Your task to perform on an android device: turn off priority inbox in the gmail app Image 0: 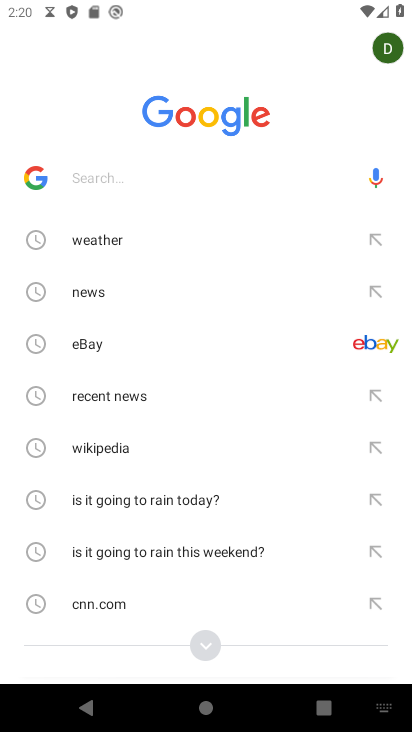
Step 0: press home button
Your task to perform on an android device: turn off priority inbox in the gmail app Image 1: 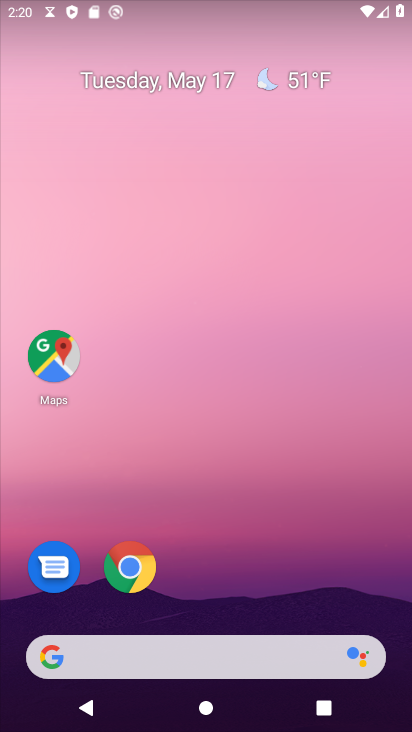
Step 1: drag from (240, 642) to (219, 262)
Your task to perform on an android device: turn off priority inbox in the gmail app Image 2: 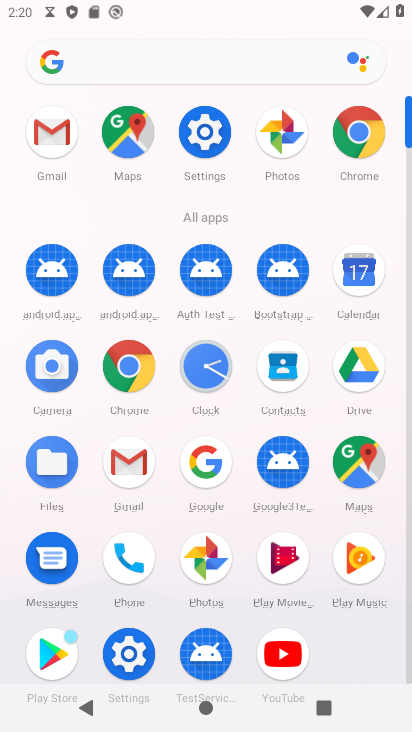
Step 2: click (137, 472)
Your task to perform on an android device: turn off priority inbox in the gmail app Image 3: 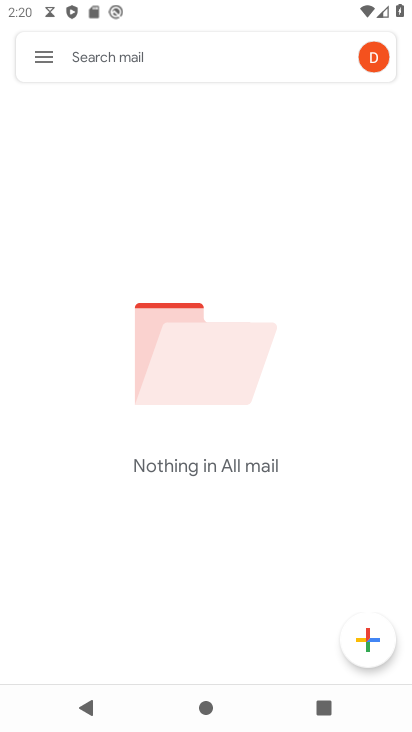
Step 3: click (40, 60)
Your task to perform on an android device: turn off priority inbox in the gmail app Image 4: 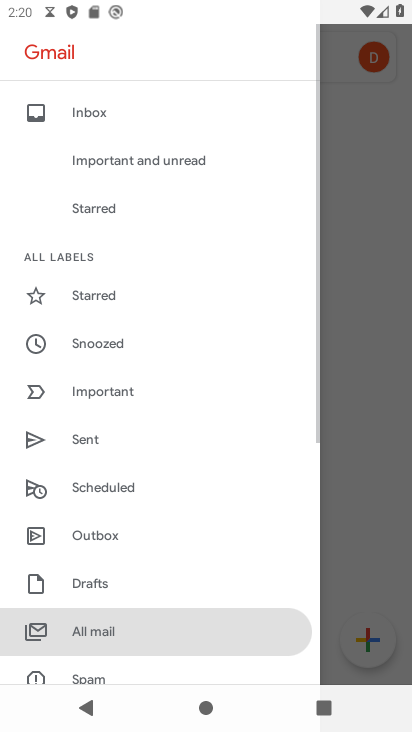
Step 4: drag from (104, 603) to (146, 261)
Your task to perform on an android device: turn off priority inbox in the gmail app Image 5: 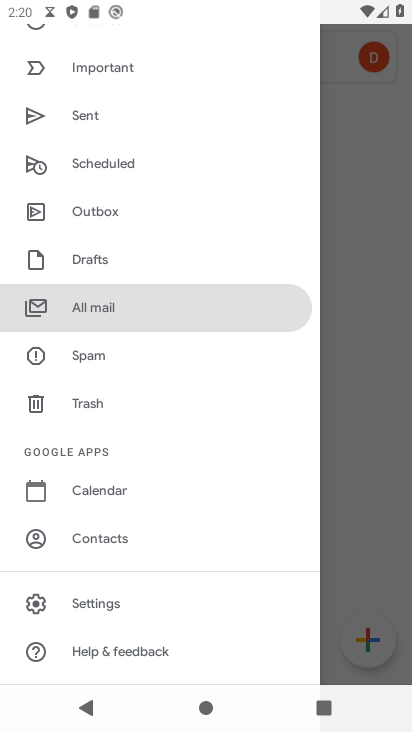
Step 5: click (102, 583)
Your task to perform on an android device: turn off priority inbox in the gmail app Image 6: 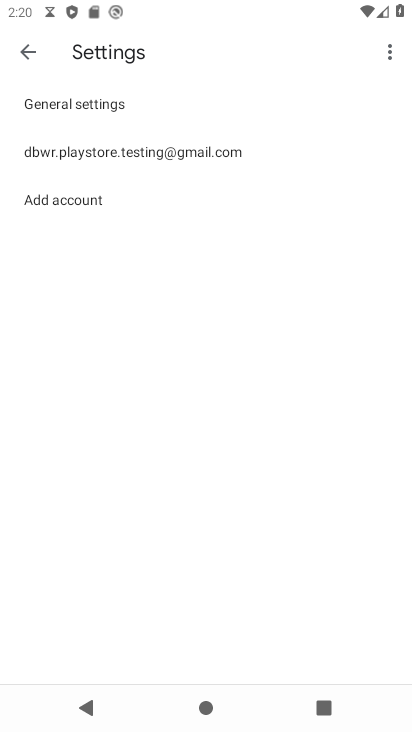
Step 6: click (99, 153)
Your task to perform on an android device: turn off priority inbox in the gmail app Image 7: 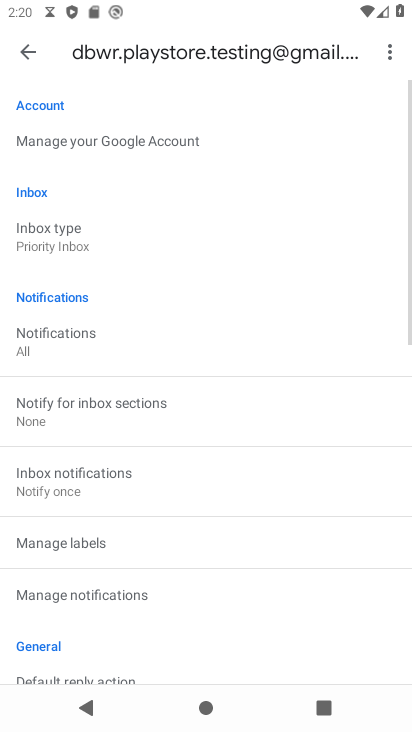
Step 7: click (77, 240)
Your task to perform on an android device: turn off priority inbox in the gmail app Image 8: 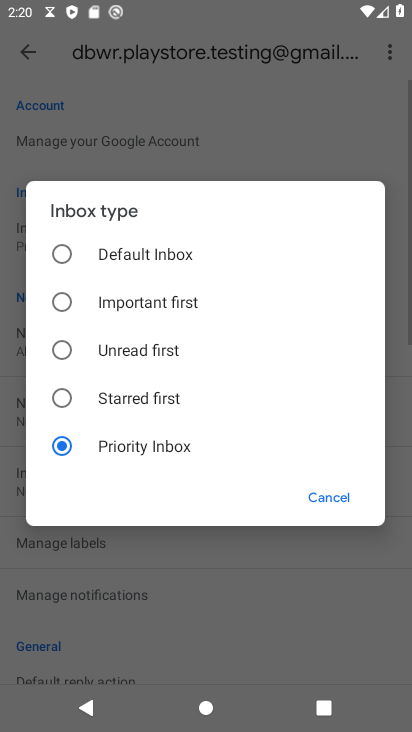
Step 8: click (78, 260)
Your task to perform on an android device: turn off priority inbox in the gmail app Image 9: 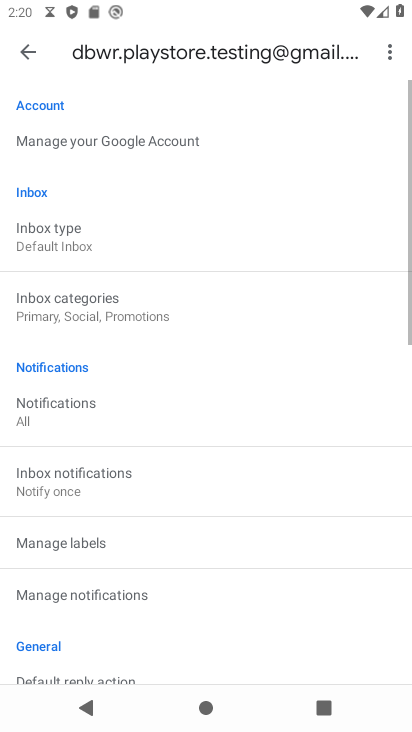
Step 9: task complete